Your task to perform on an android device: toggle wifi Image 0: 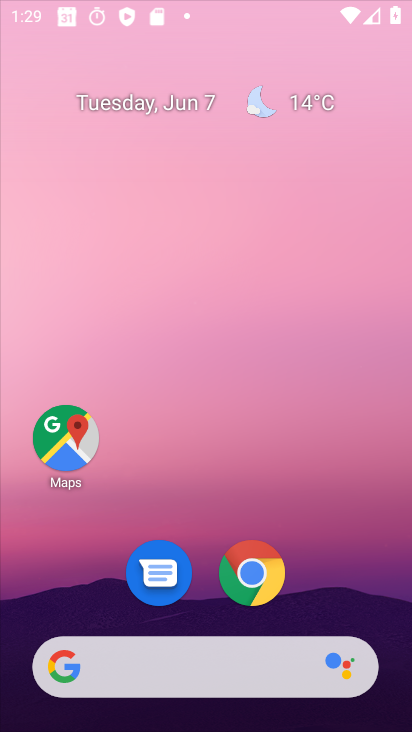
Step 0: press home button
Your task to perform on an android device: toggle wifi Image 1: 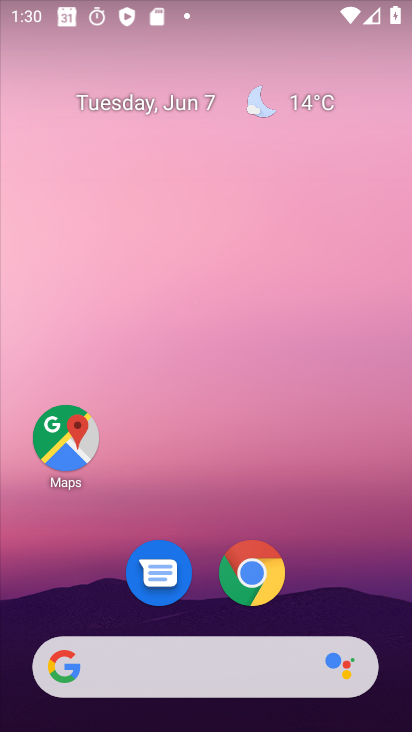
Step 1: drag from (275, 182) to (263, 621)
Your task to perform on an android device: toggle wifi Image 2: 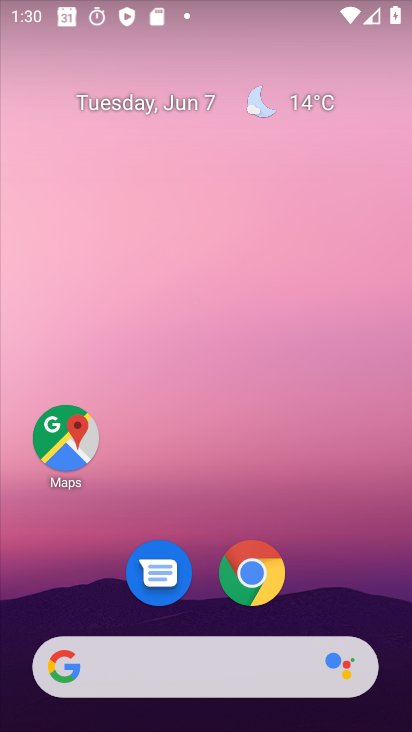
Step 2: drag from (259, 9) to (256, 451)
Your task to perform on an android device: toggle wifi Image 3: 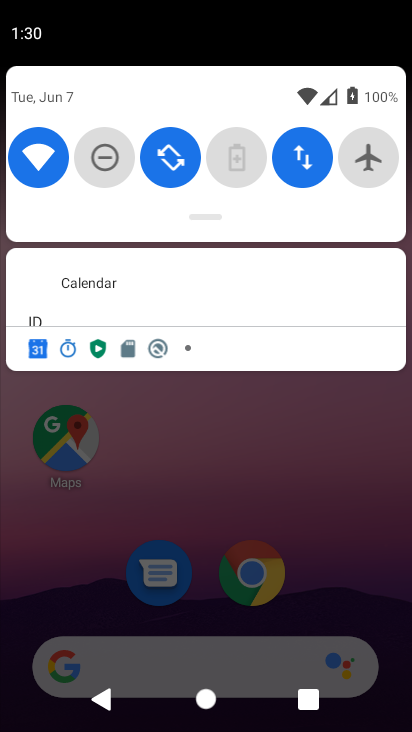
Step 3: click (254, 502)
Your task to perform on an android device: toggle wifi Image 4: 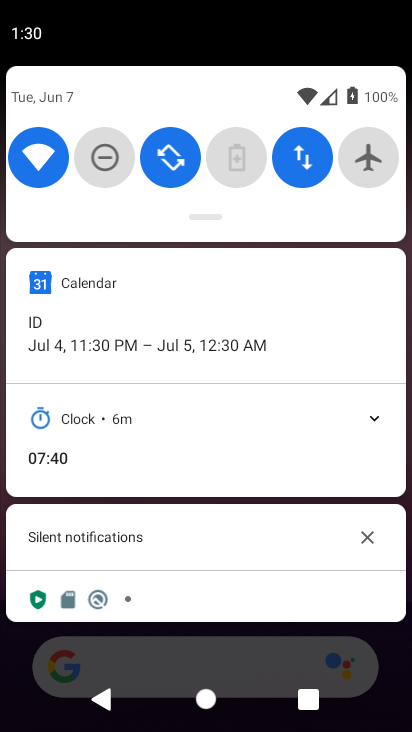
Step 4: click (41, 157)
Your task to perform on an android device: toggle wifi Image 5: 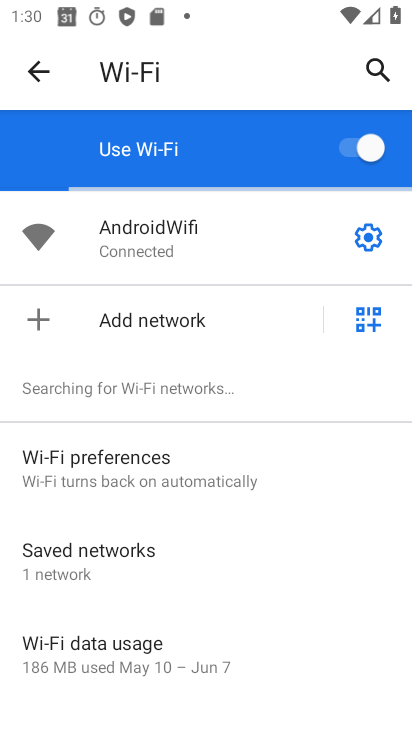
Step 5: click (355, 147)
Your task to perform on an android device: toggle wifi Image 6: 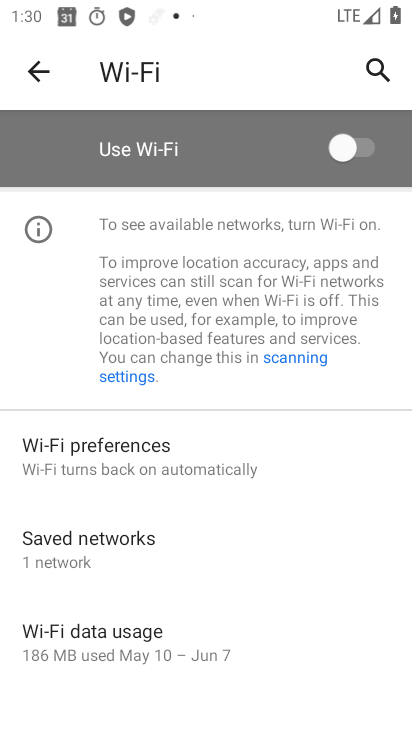
Step 6: task complete